Your task to perform on an android device: Go to Google Image 0: 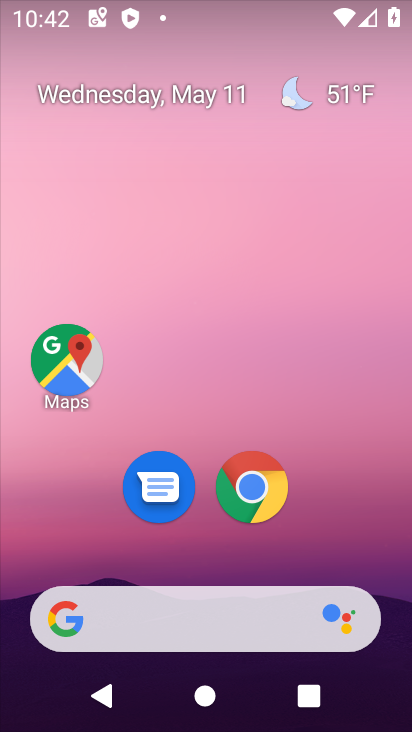
Step 0: drag from (339, 501) to (304, 125)
Your task to perform on an android device: Go to Google Image 1: 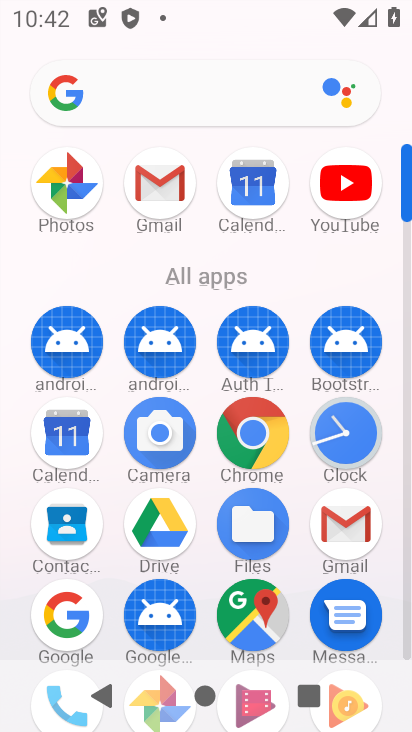
Step 1: click (80, 595)
Your task to perform on an android device: Go to Google Image 2: 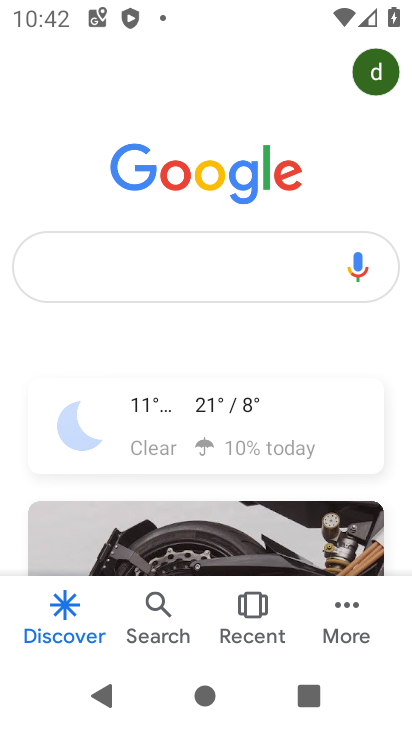
Step 2: task complete